Your task to perform on an android device: Open accessibility settings Image 0: 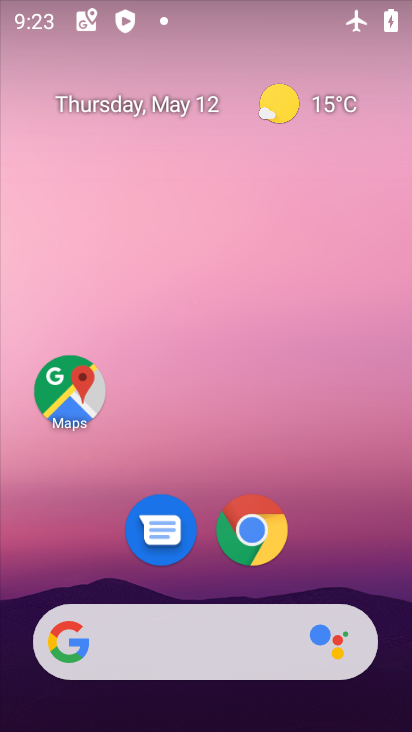
Step 0: drag from (236, 688) to (351, 7)
Your task to perform on an android device: Open accessibility settings Image 1: 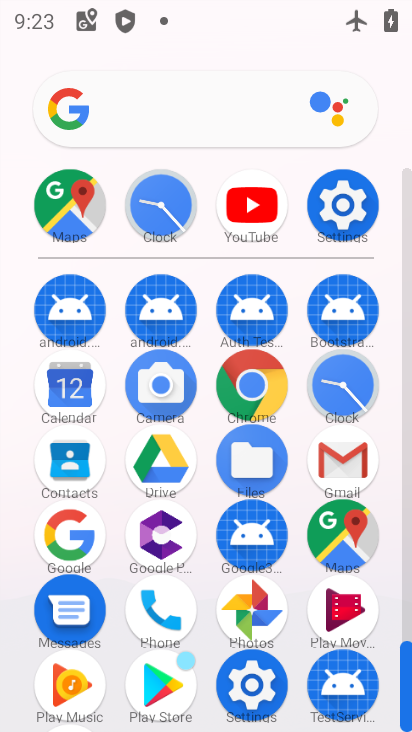
Step 1: click (322, 210)
Your task to perform on an android device: Open accessibility settings Image 2: 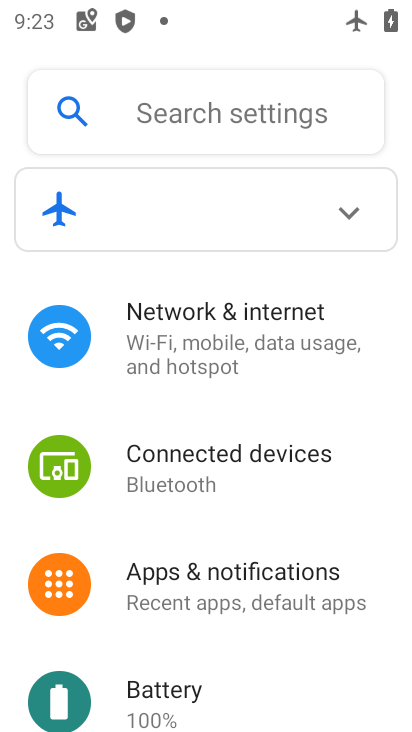
Step 2: drag from (249, 705) to (267, 52)
Your task to perform on an android device: Open accessibility settings Image 3: 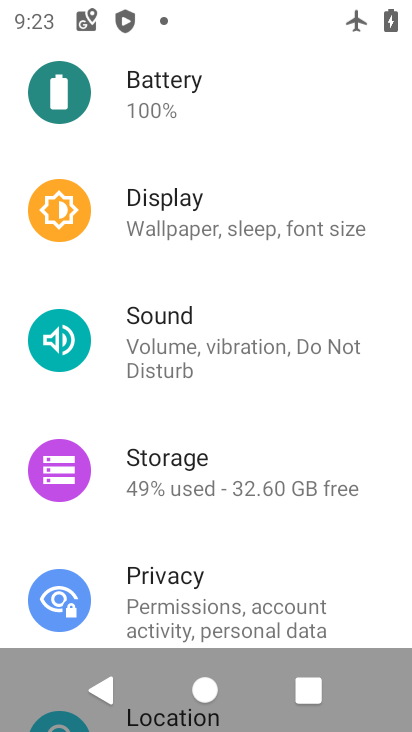
Step 3: drag from (291, 576) to (299, 64)
Your task to perform on an android device: Open accessibility settings Image 4: 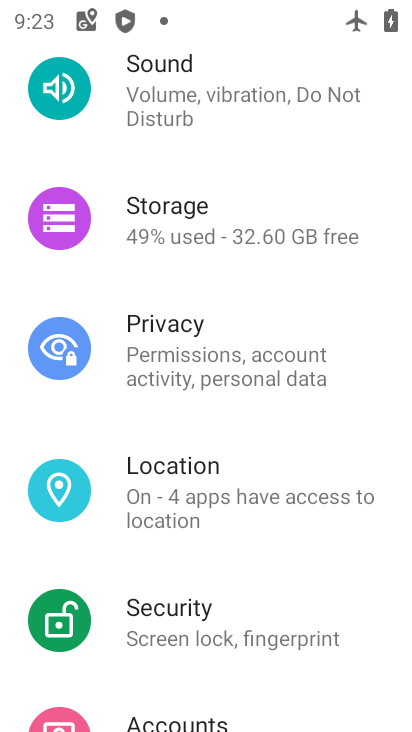
Step 4: drag from (221, 564) to (277, 163)
Your task to perform on an android device: Open accessibility settings Image 5: 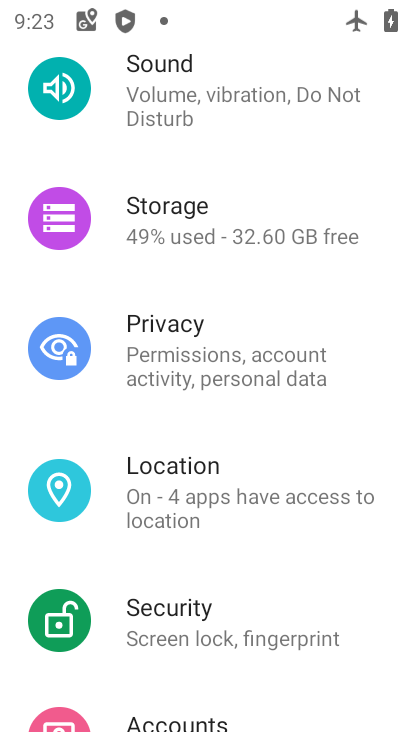
Step 5: drag from (250, 628) to (210, 76)
Your task to perform on an android device: Open accessibility settings Image 6: 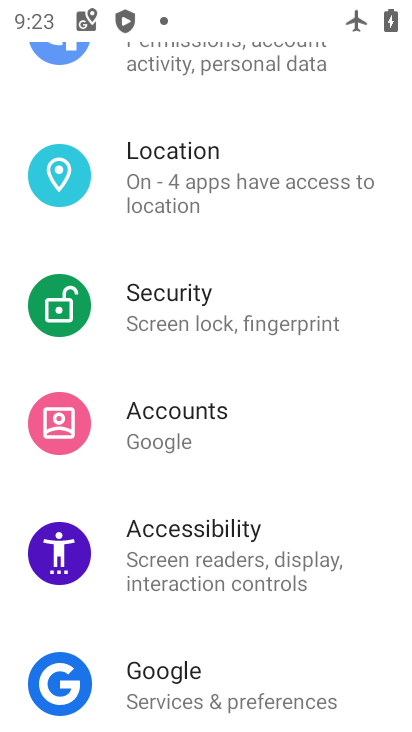
Step 6: click (203, 512)
Your task to perform on an android device: Open accessibility settings Image 7: 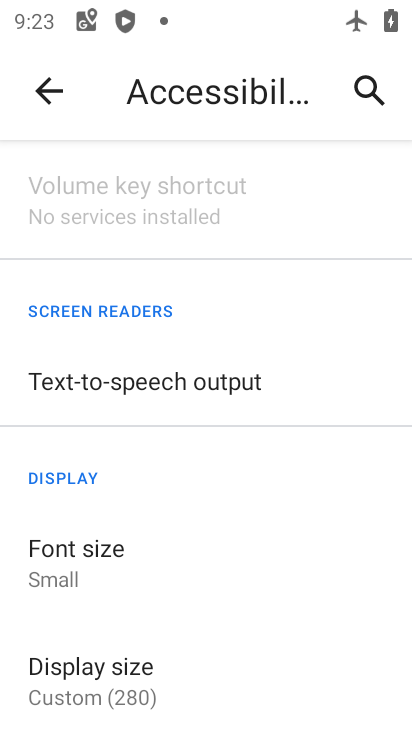
Step 7: task complete